Your task to perform on an android device: toggle airplane mode Image 0: 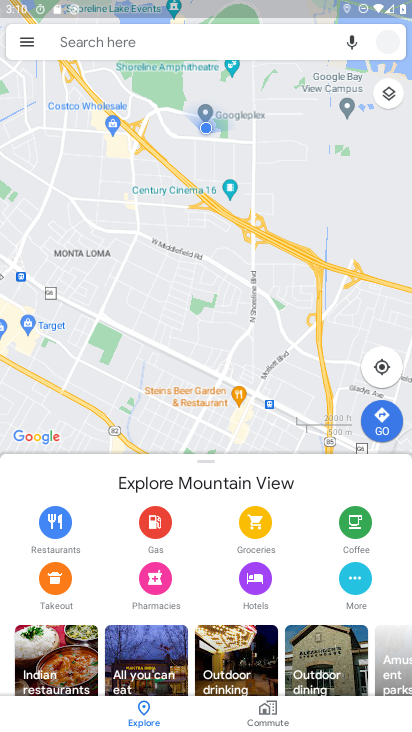
Step 0: press home button
Your task to perform on an android device: toggle airplane mode Image 1: 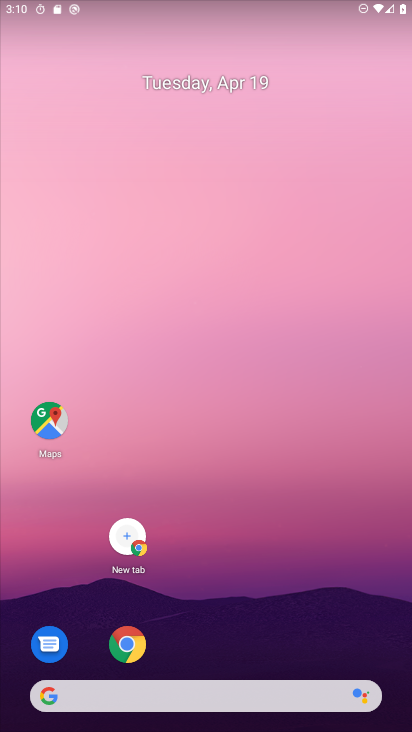
Step 1: drag from (148, 24) to (181, 618)
Your task to perform on an android device: toggle airplane mode Image 2: 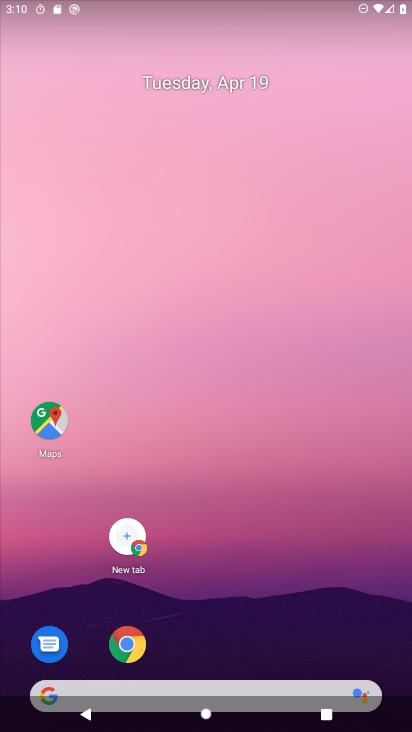
Step 2: click (181, 618)
Your task to perform on an android device: toggle airplane mode Image 3: 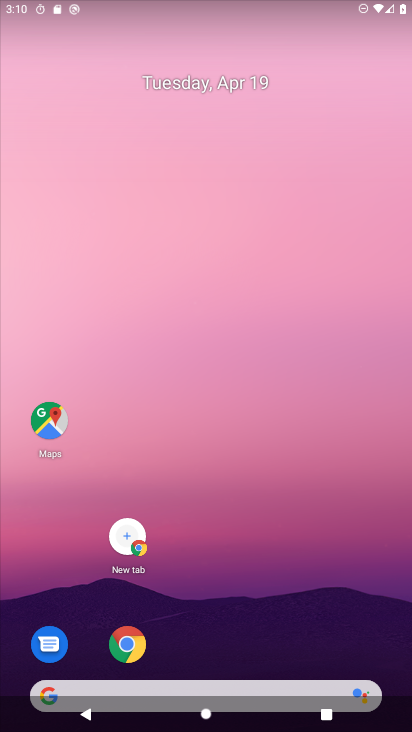
Step 3: drag from (182, 618) to (124, 112)
Your task to perform on an android device: toggle airplane mode Image 4: 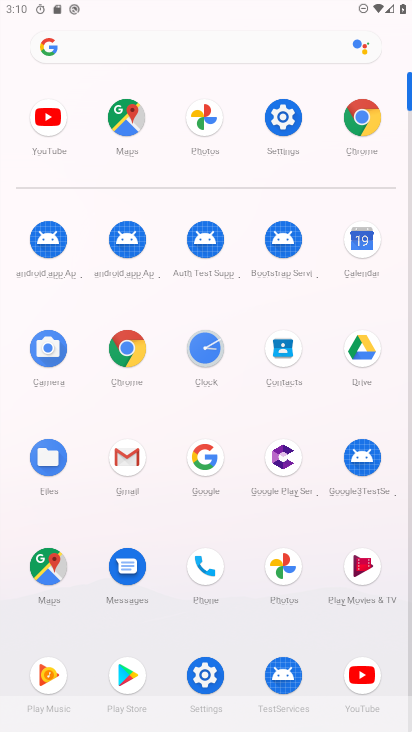
Step 4: click (298, 125)
Your task to perform on an android device: toggle airplane mode Image 5: 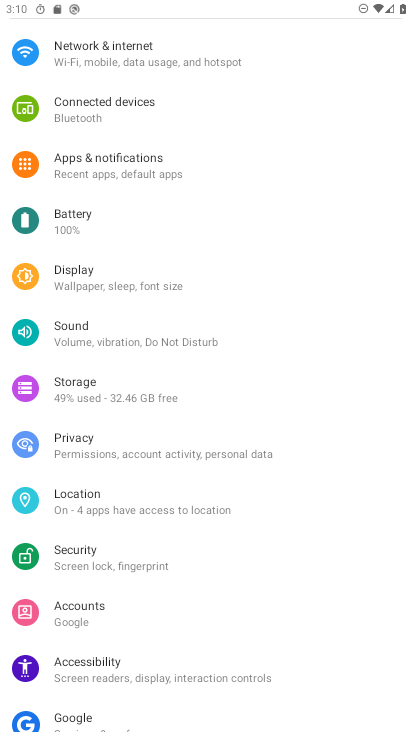
Step 5: click (141, 58)
Your task to perform on an android device: toggle airplane mode Image 6: 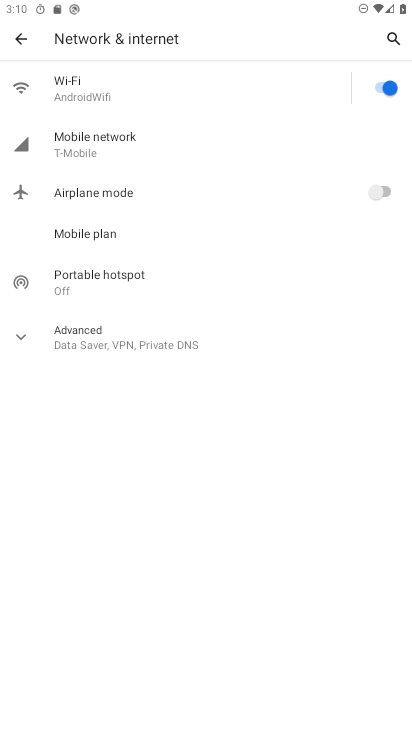
Step 6: click (383, 192)
Your task to perform on an android device: toggle airplane mode Image 7: 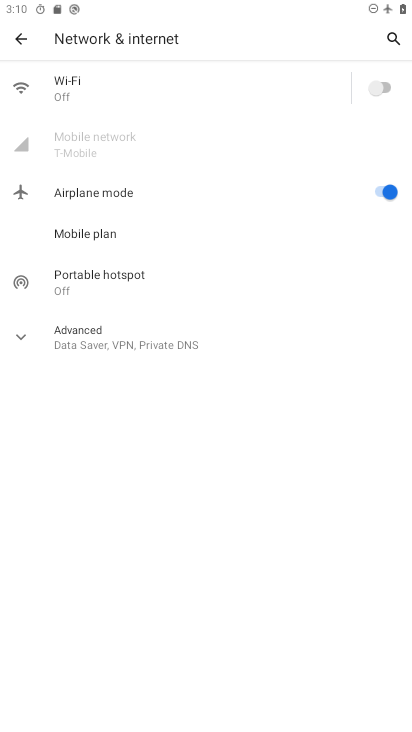
Step 7: task complete